Your task to perform on an android device: change the clock display to digital Image 0: 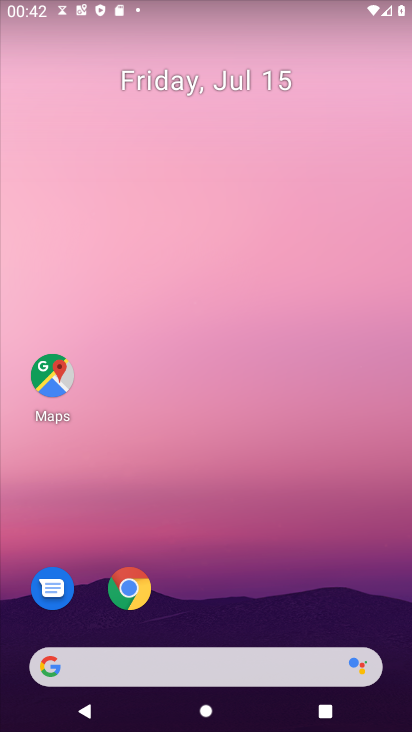
Step 0: drag from (252, 633) to (381, 62)
Your task to perform on an android device: change the clock display to digital Image 1: 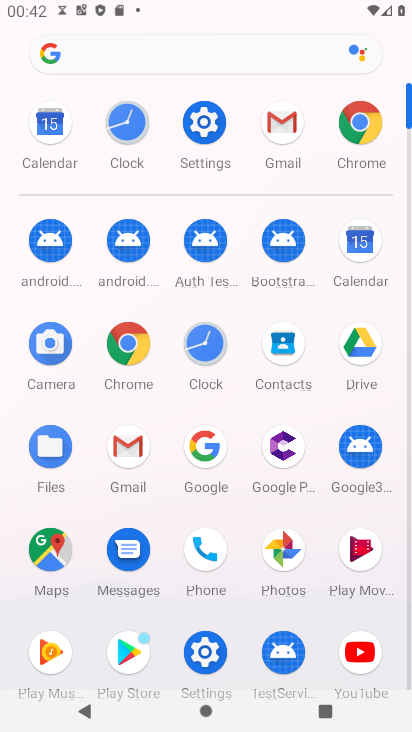
Step 1: click (203, 350)
Your task to perform on an android device: change the clock display to digital Image 2: 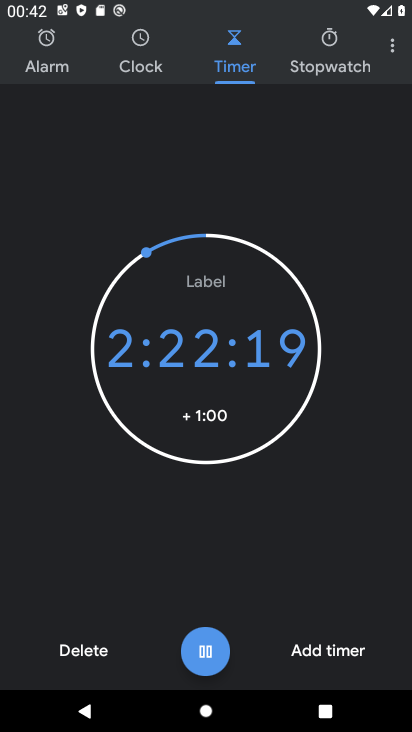
Step 2: click (385, 40)
Your task to perform on an android device: change the clock display to digital Image 3: 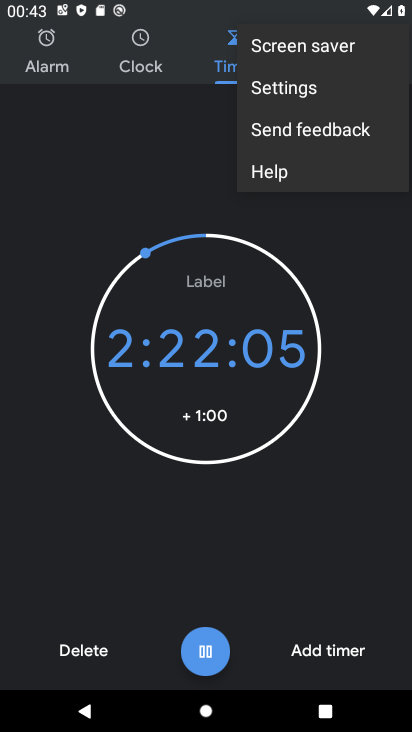
Step 3: click (321, 90)
Your task to perform on an android device: change the clock display to digital Image 4: 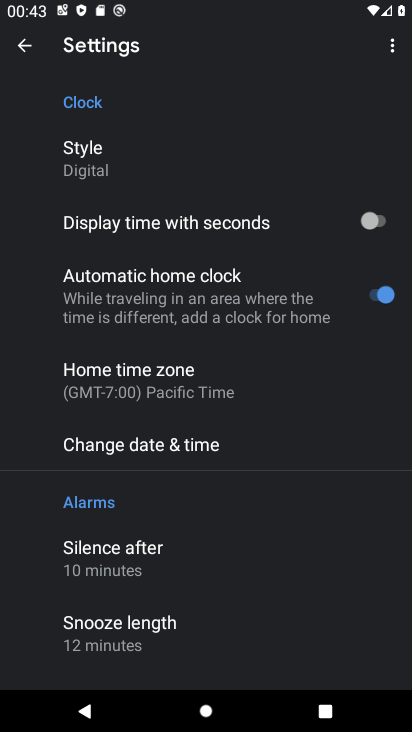
Step 4: task complete